Your task to perform on an android device: turn off airplane mode Image 0: 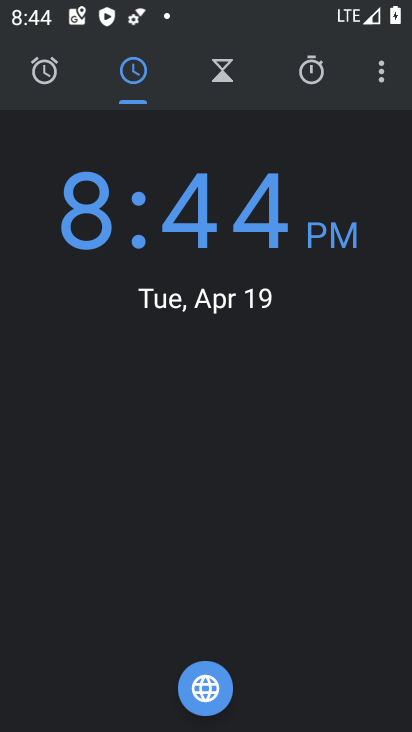
Step 0: press home button
Your task to perform on an android device: turn off airplane mode Image 1: 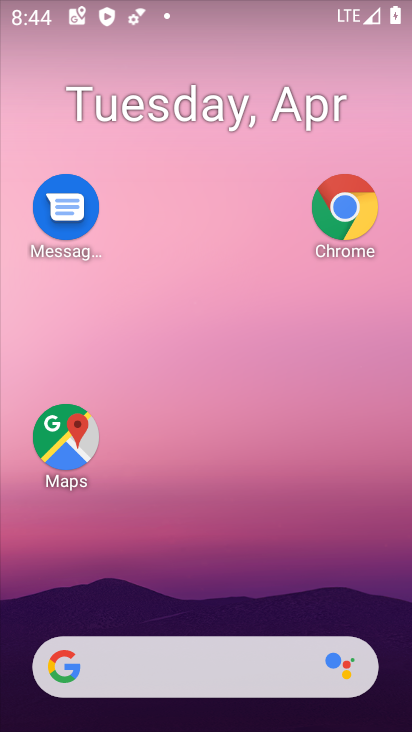
Step 1: drag from (214, 618) to (236, 7)
Your task to perform on an android device: turn off airplane mode Image 2: 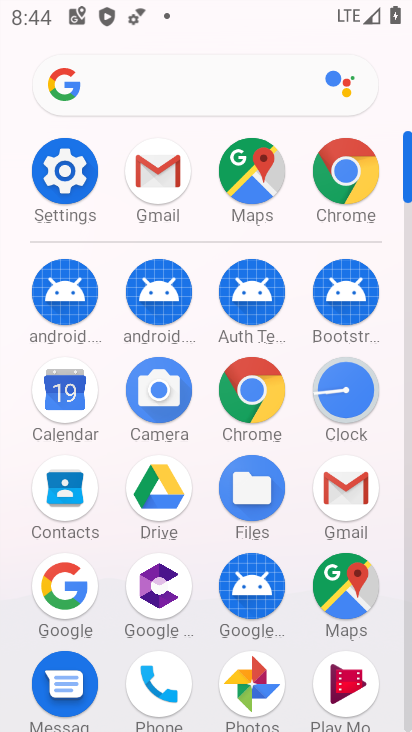
Step 2: click (79, 171)
Your task to perform on an android device: turn off airplane mode Image 3: 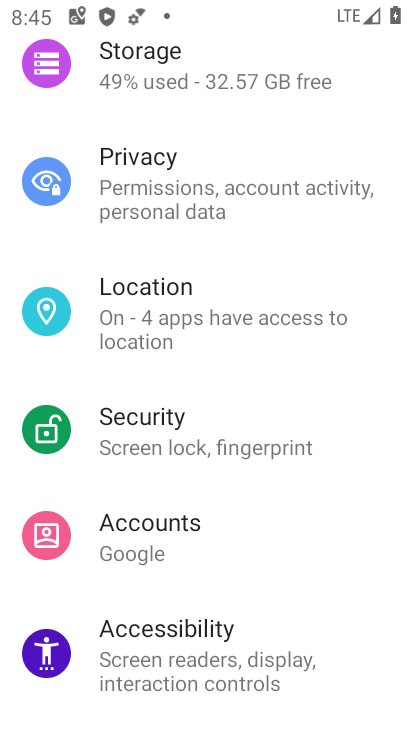
Step 3: drag from (139, 294) to (86, 650)
Your task to perform on an android device: turn off airplane mode Image 4: 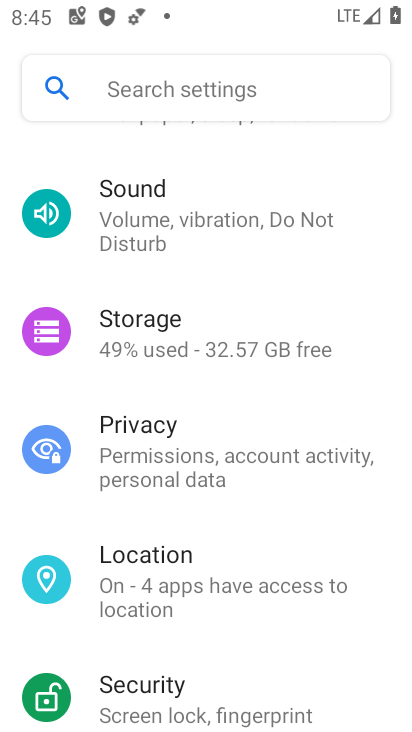
Step 4: drag from (122, 180) to (147, 541)
Your task to perform on an android device: turn off airplane mode Image 5: 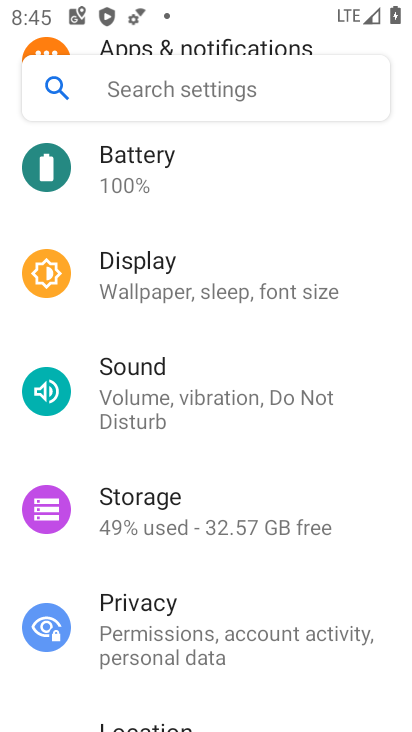
Step 5: drag from (174, 199) to (157, 594)
Your task to perform on an android device: turn off airplane mode Image 6: 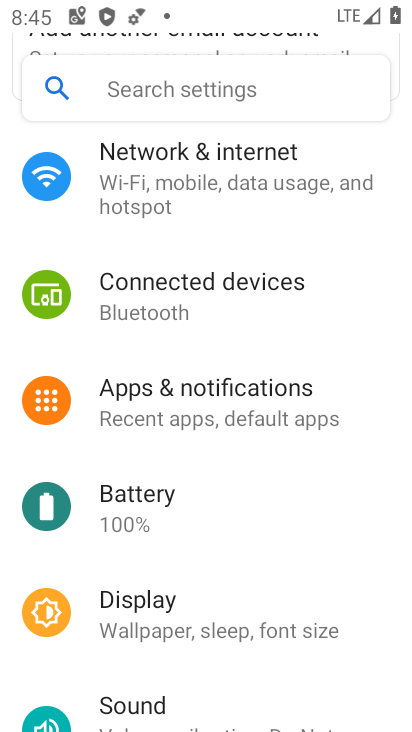
Step 6: click (211, 202)
Your task to perform on an android device: turn off airplane mode Image 7: 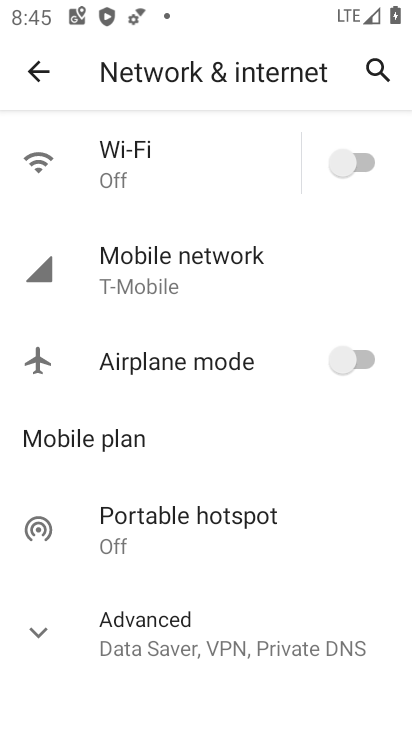
Step 7: task complete